Your task to perform on an android device: Toggle the flashlight Image 0: 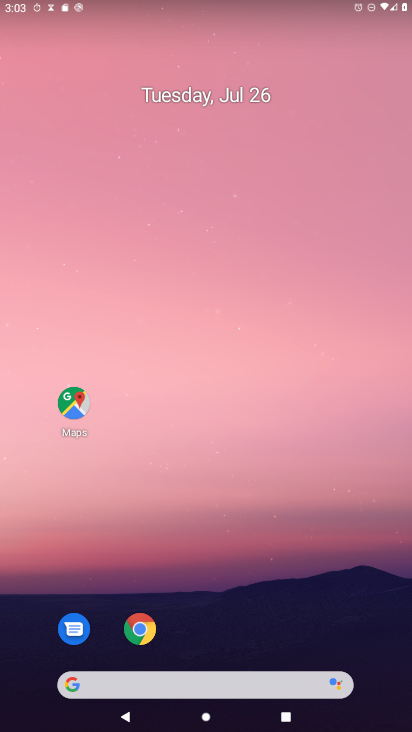
Step 0: drag from (251, 670) to (294, 19)
Your task to perform on an android device: Toggle the flashlight Image 1: 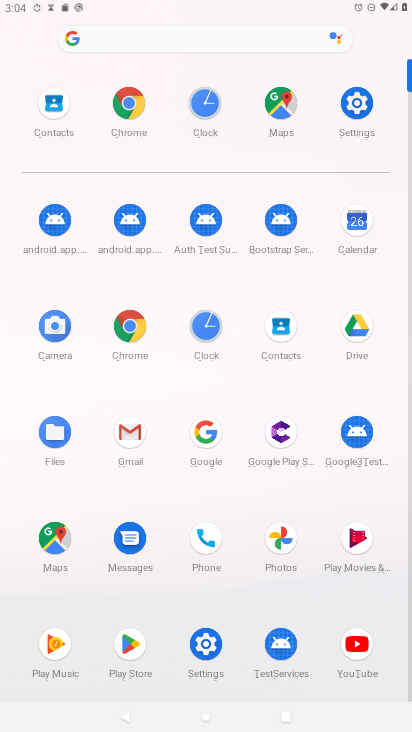
Step 1: task complete